Your task to perform on an android device: refresh tabs in the chrome app Image 0: 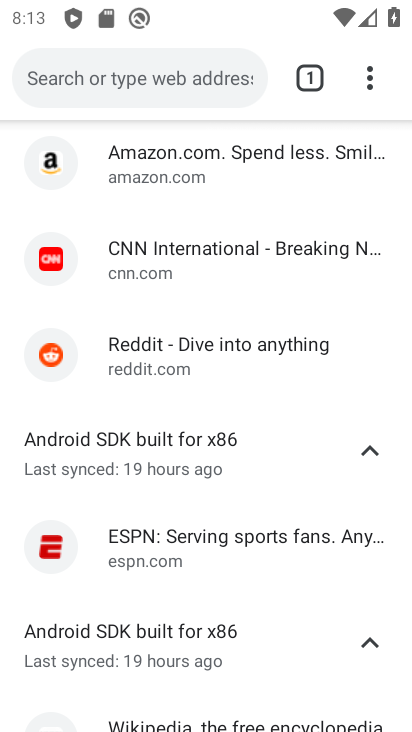
Step 0: press back button
Your task to perform on an android device: refresh tabs in the chrome app Image 1: 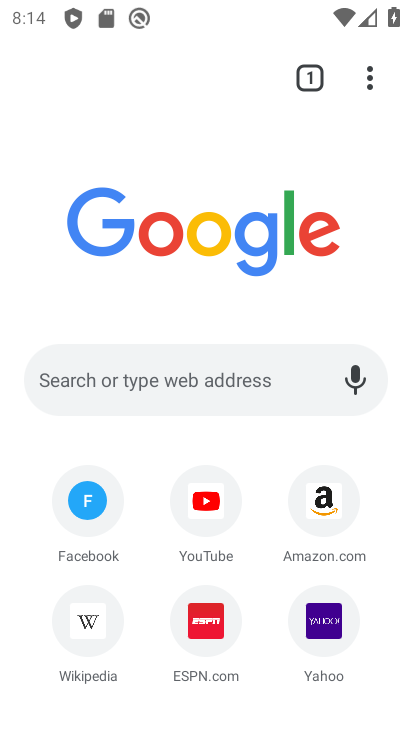
Step 1: drag from (368, 75) to (163, 469)
Your task to perform on an android device: refresh tabs in the chrome app Image 2: 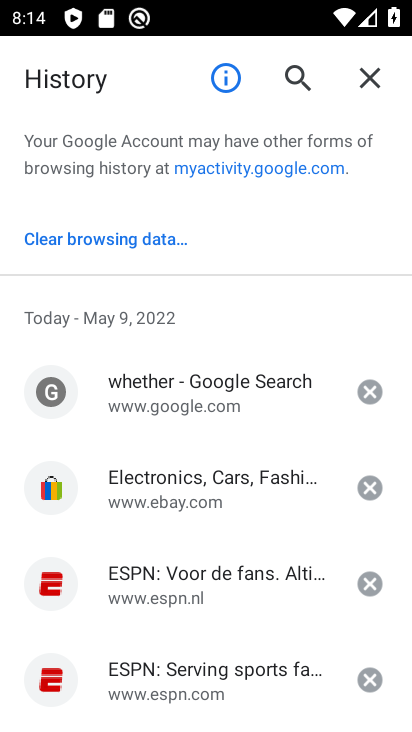
Step 2: click (373, 75)
Your task to perform on an android device: refresh tabs in the chrome app Image 3: 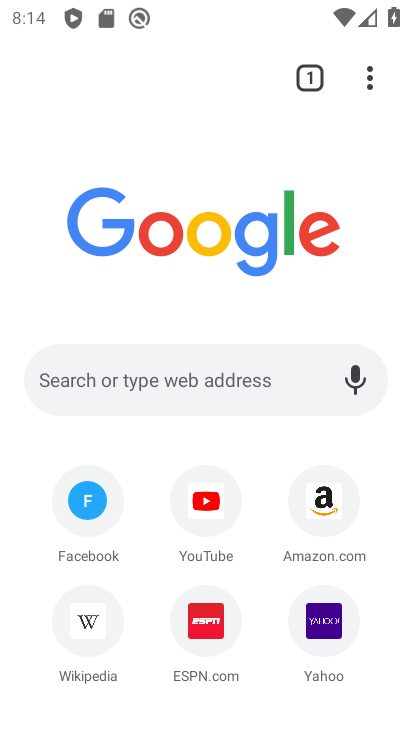
Step 3: click (372, 77)
Your task to perform on an android device: refresh tabs in the chrome app Image 4: 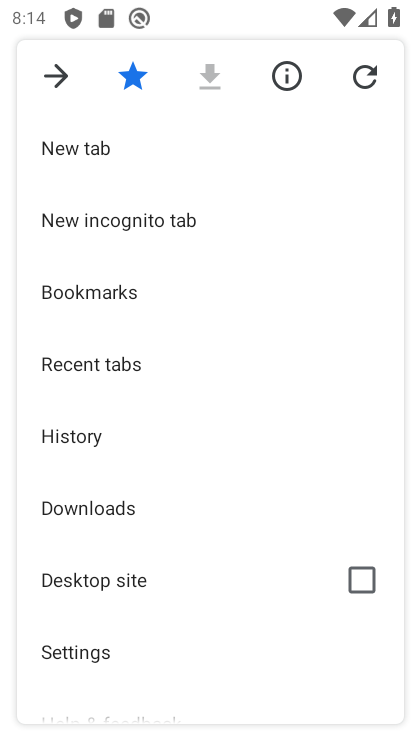
Step 4: click (354, 83)
Your task to perform on an android device: refresh tabs in the chrome app Image 5: 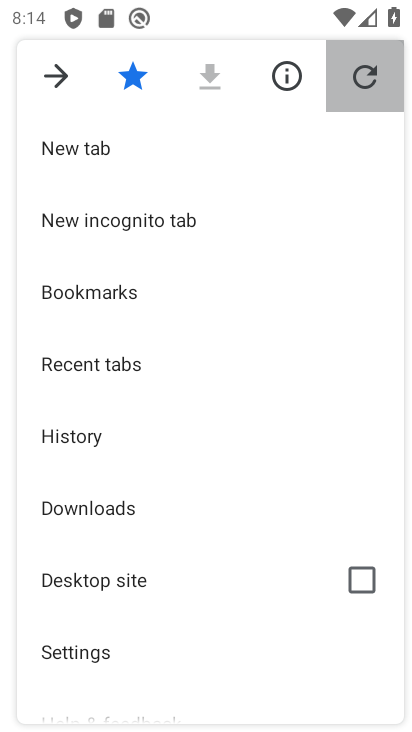
Step 5: click (360, 77)
Your task to perform on an android device: refresh tabs in the chrome app Image 6: 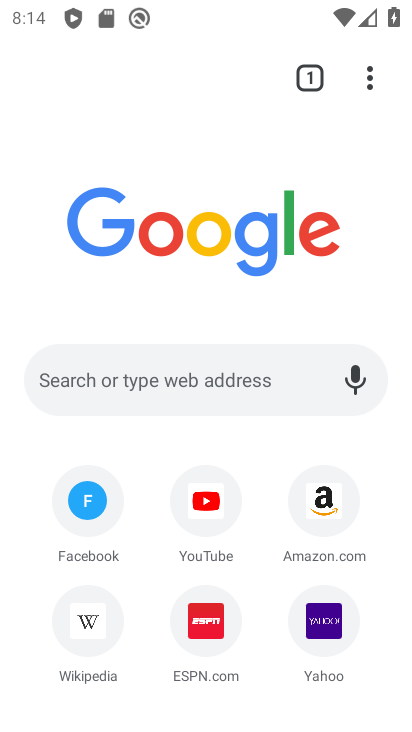
Step 6: click (361, 77)
Your task to perform on an android device: refresh tabs in the chrome app Image 7: 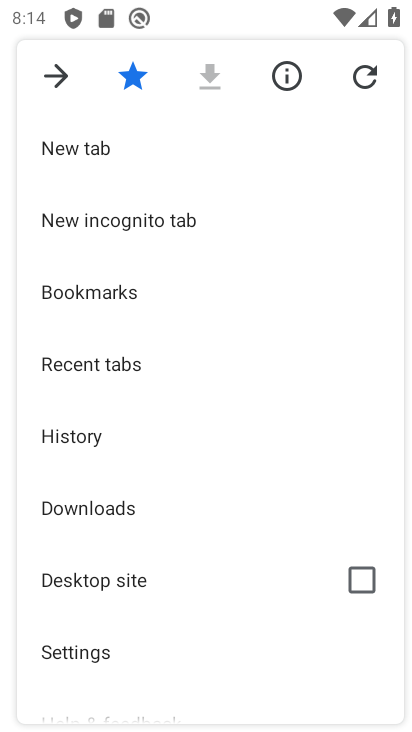
Step 7: click (357, 84)
Your task to perform on an android device: refresh tabs in the chrome app Image 8: 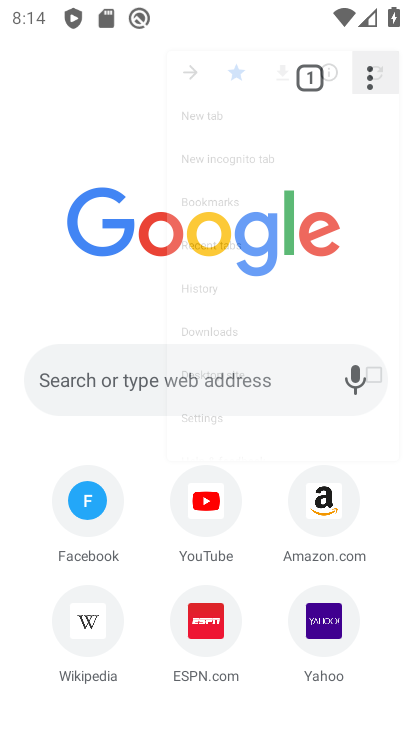
Step 8: click (358, 80)
Your task to perform on an android device: refresh tabs in the chrome app Image 9: 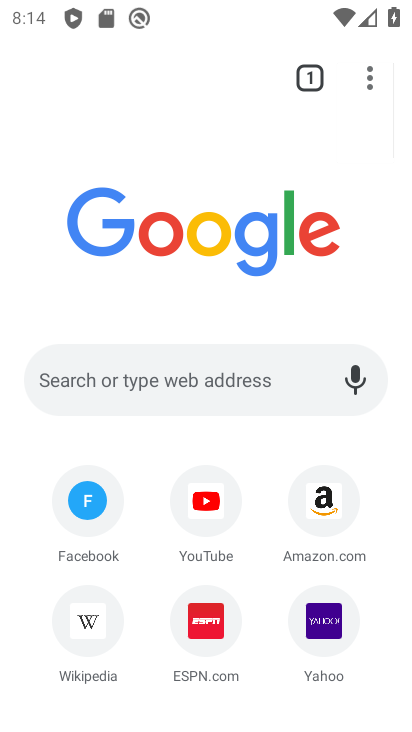
Step 9: click (361, 75)
Your task to perform on an android device: refresh tabs in the chrome app Image 10: 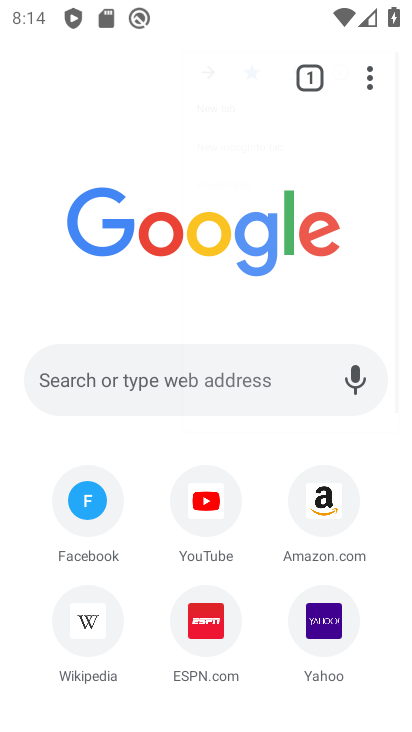
Step 10: click (366, 69)
Your task to perform on an android device: refresh tabs in the chrome app Image 11: 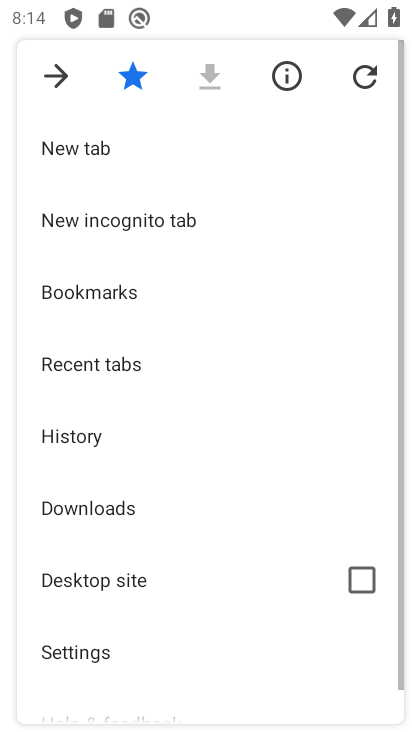
Step 11: click (368, 79)
Your task to perform on an android device: refresh tabs in the chrome app Image 12: 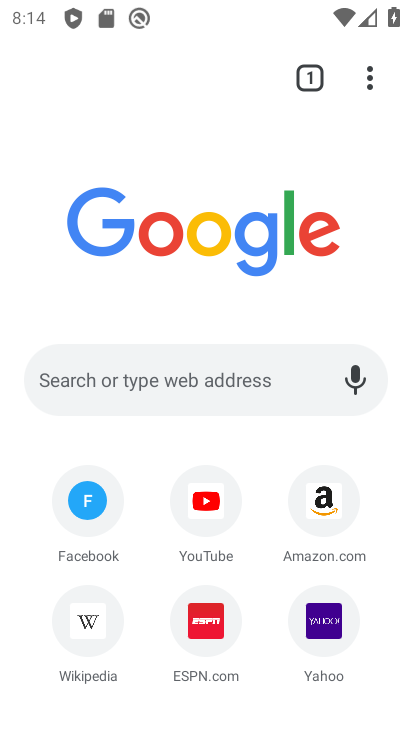
Step 12: task complete